Your task to perform on an android device: change keyboard looks Image 0: 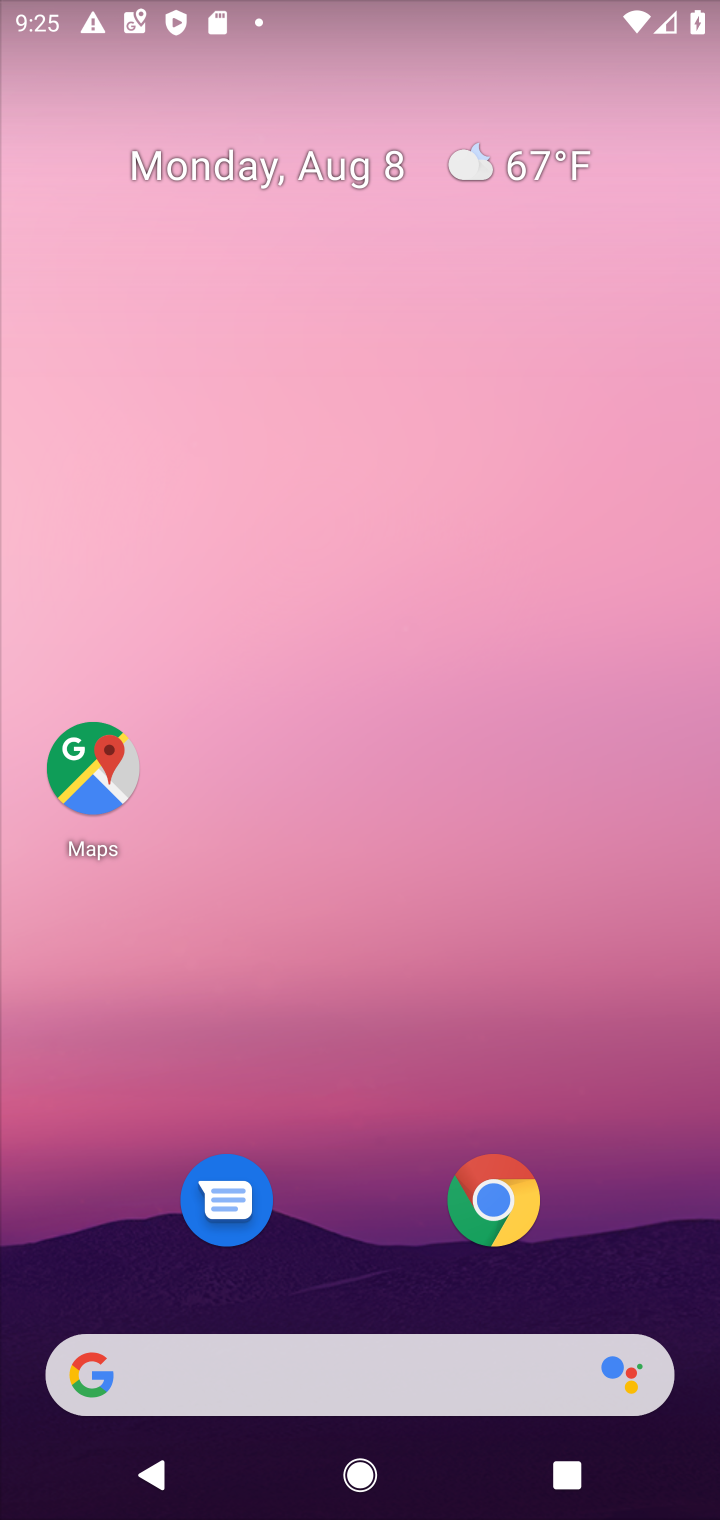
Step 0: press home button
Your task to perform on an android device: change keyboard looks Image 1: 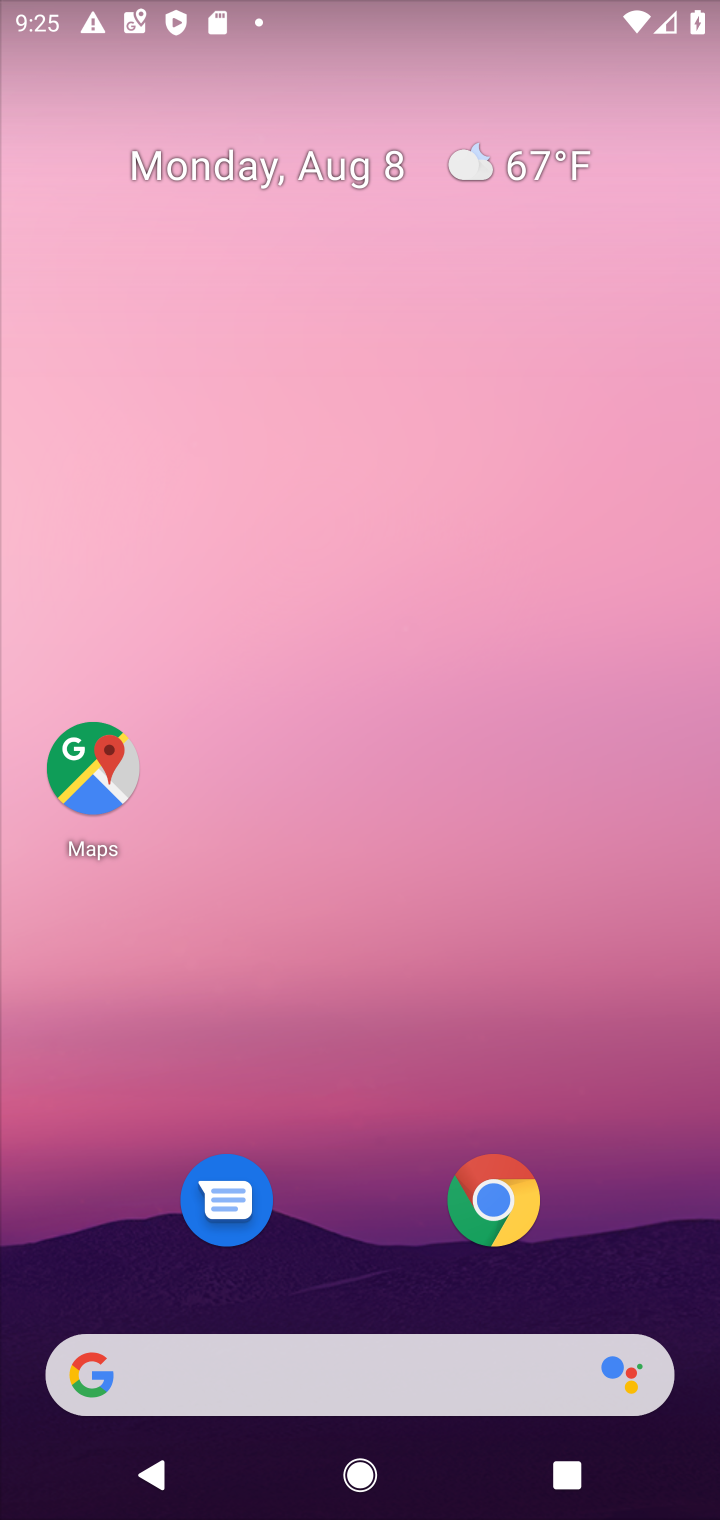
Step 1: drag from (308, 1380) to (656, 104)
Your task to perform on an android device: change keyboard looks Image 2: 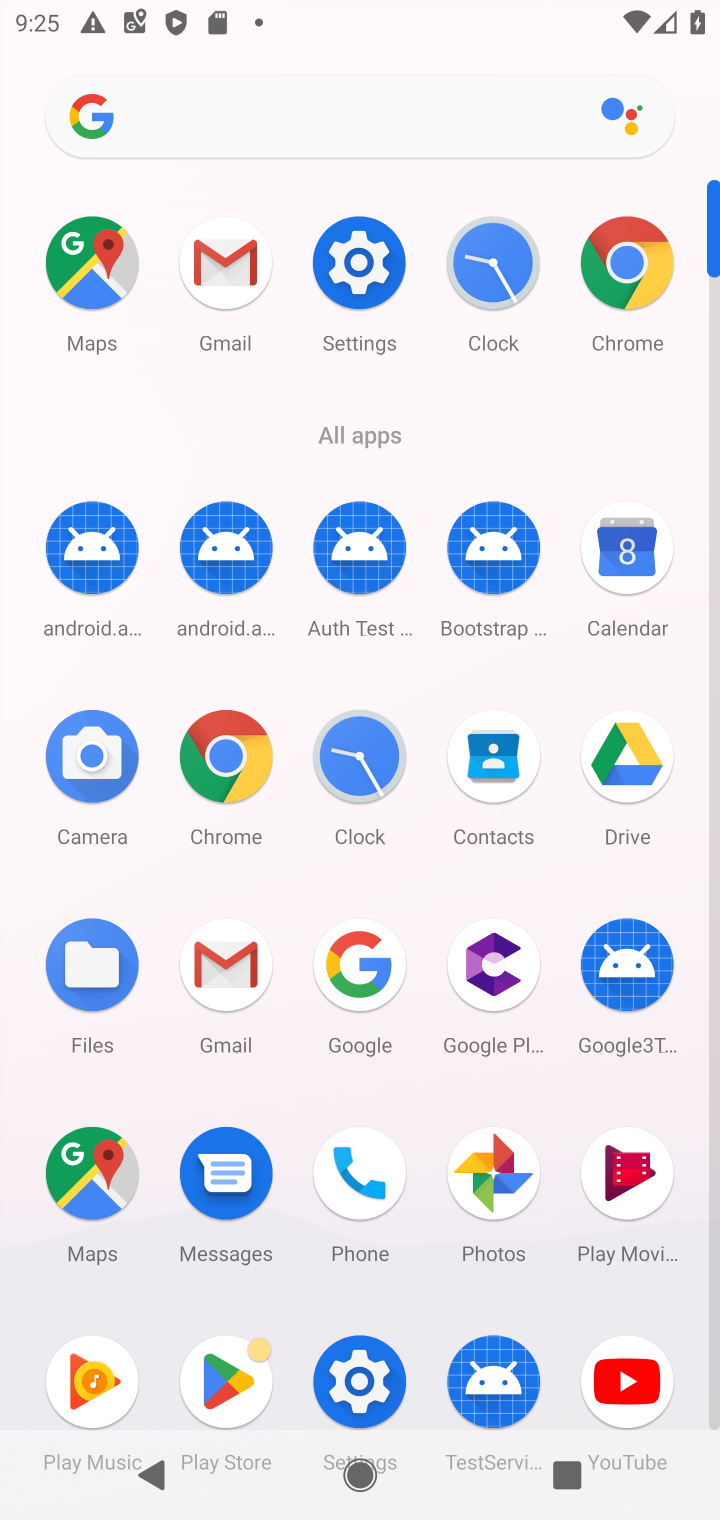
Step 2: click (364, 238)
Your task to perform on an android device: change keyboard looks Image 3: 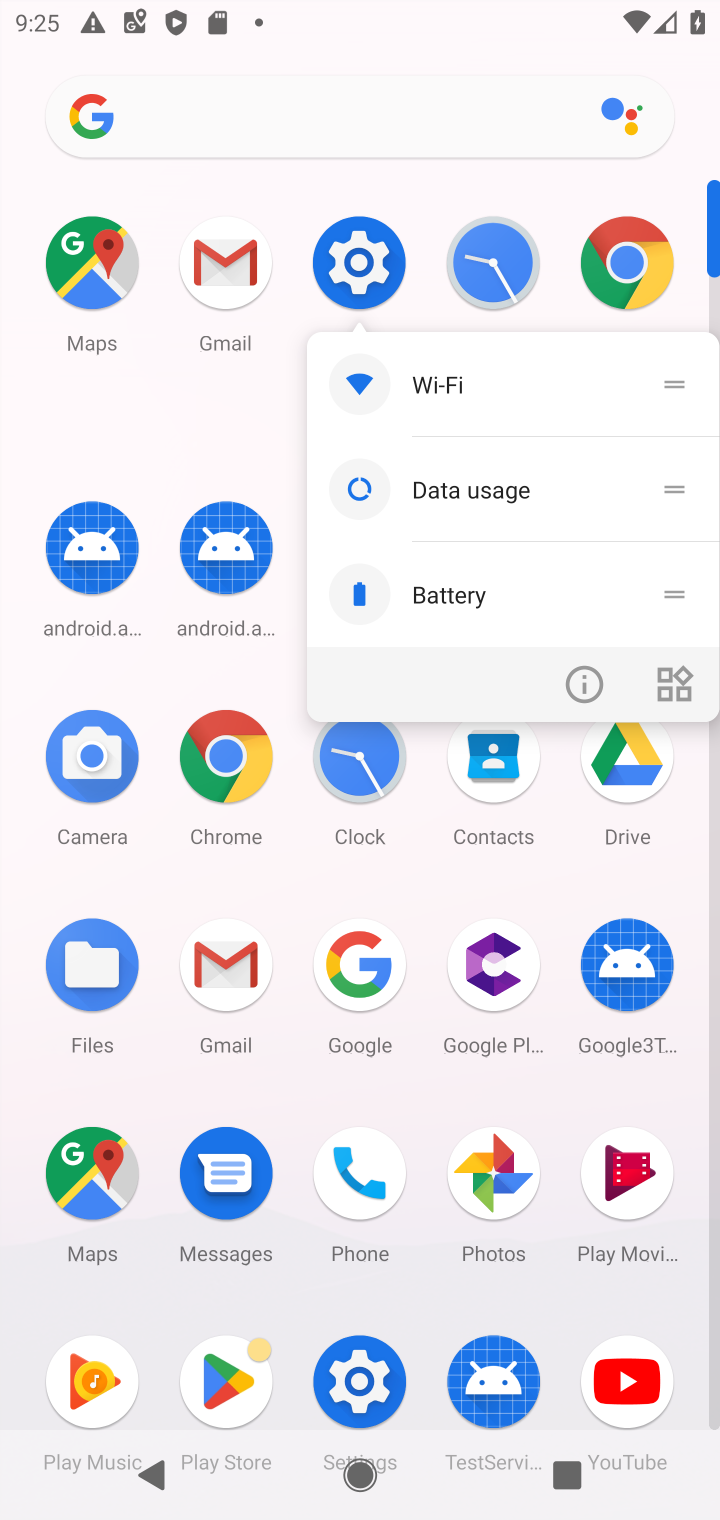
Step 3: click (357, 247)
Your task to perform on an android device: change keyboard looks Image 4: 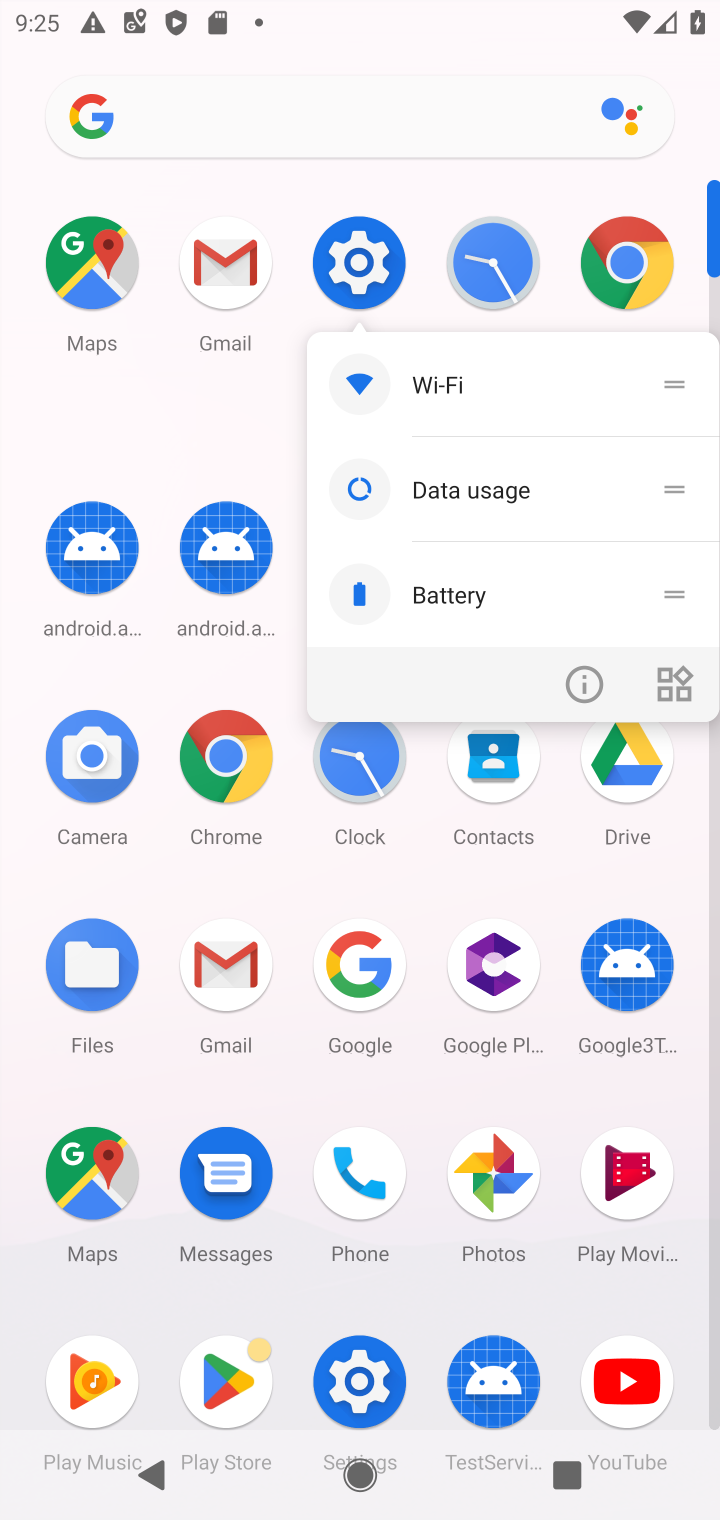
Step 4: click (357, 247)
Your task to perform on an android device: change keyboard looks Image 5: 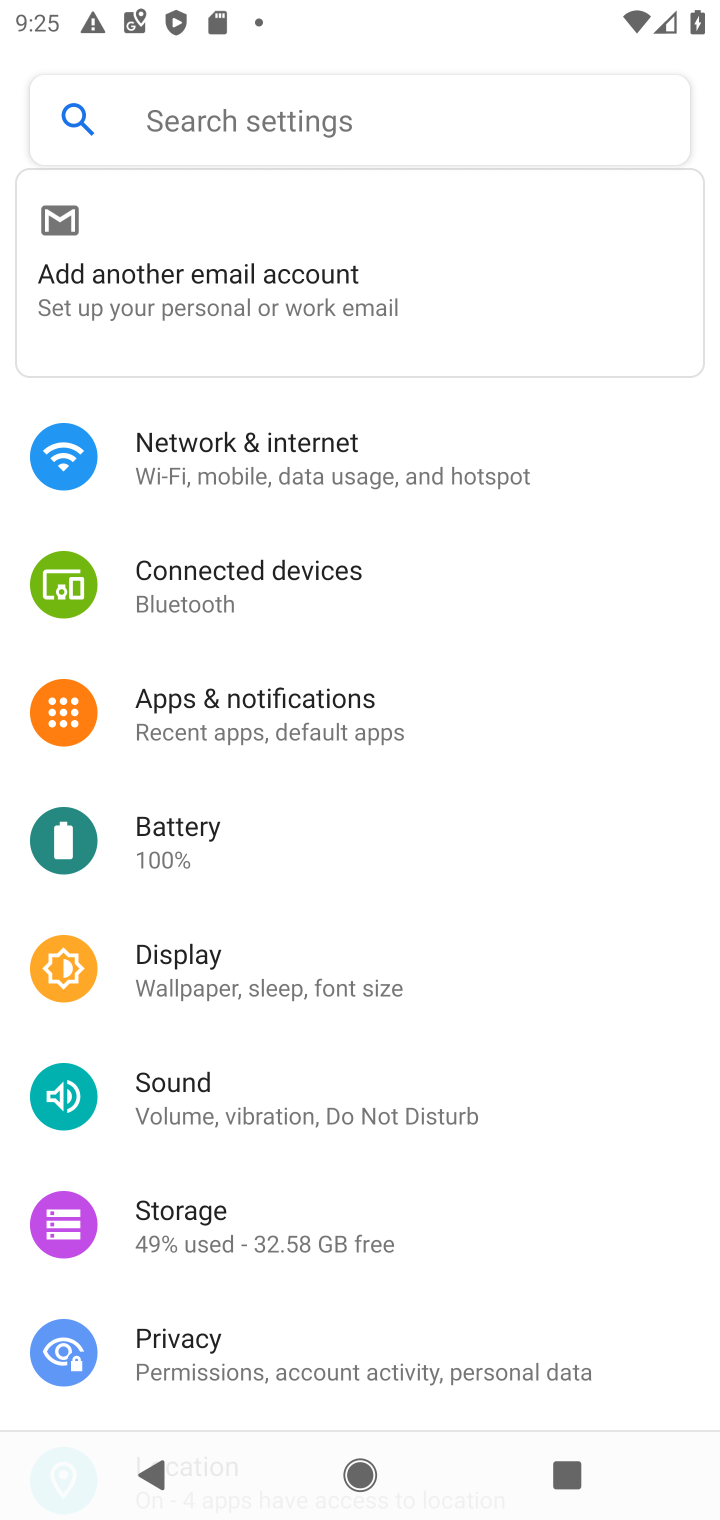
Step 5: drag from (377, 1323) to (662, 45)
Your task to perform on an android device: change keyboard looks Image 6: 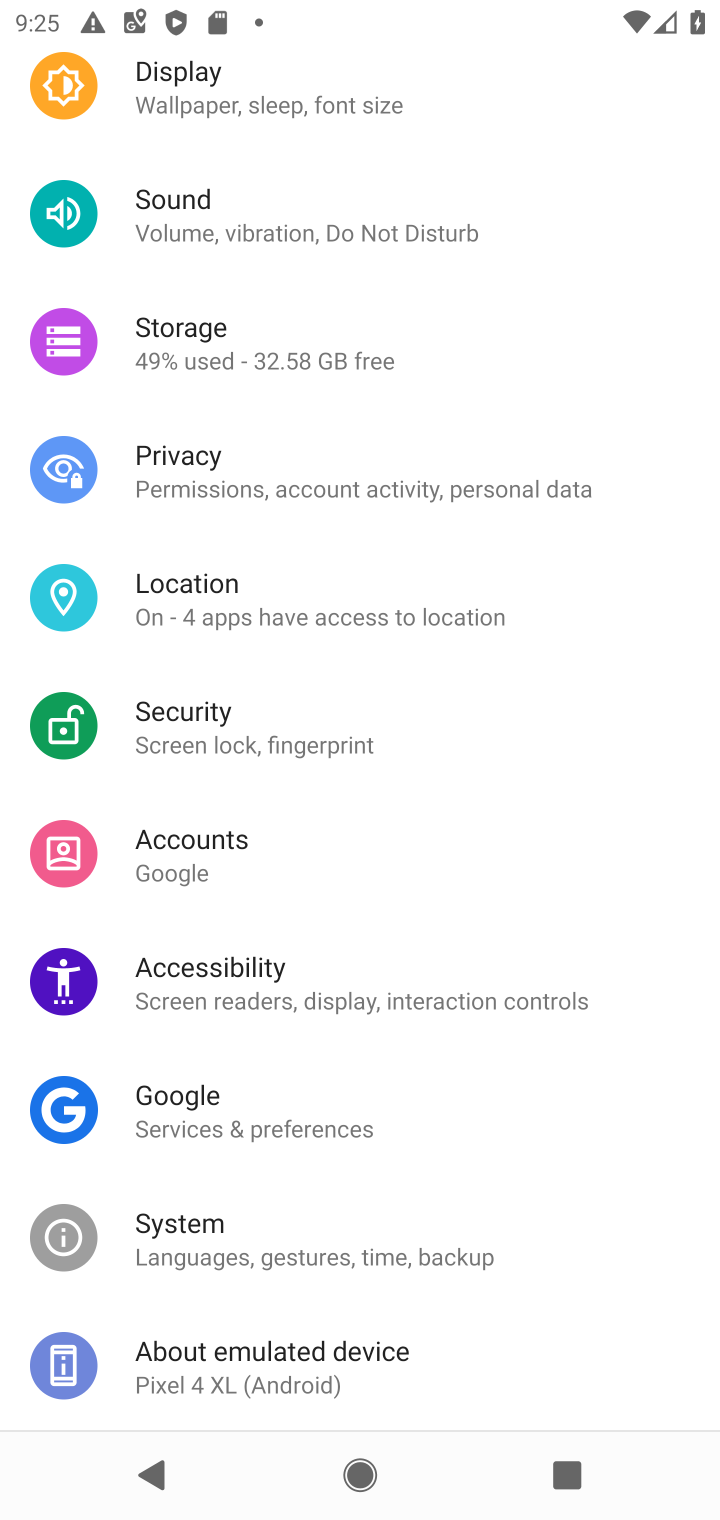
Step 6: drag from (392, 1313) to (632, 304)
Your task to perform on an android device: change keyboard looks Image 7: 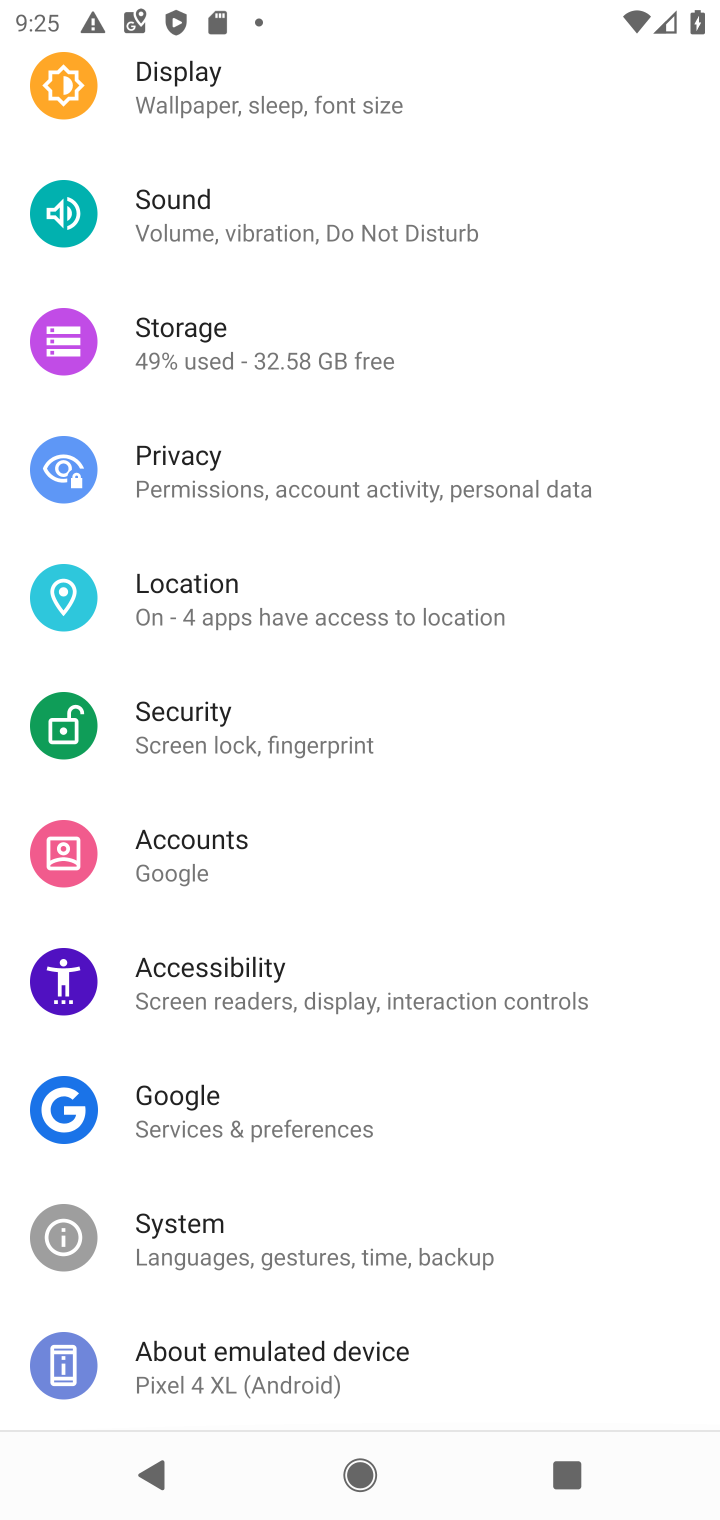
Step 7: click (257, 1237)
Your task to perform on an android device: change keyboard looks Image 8: 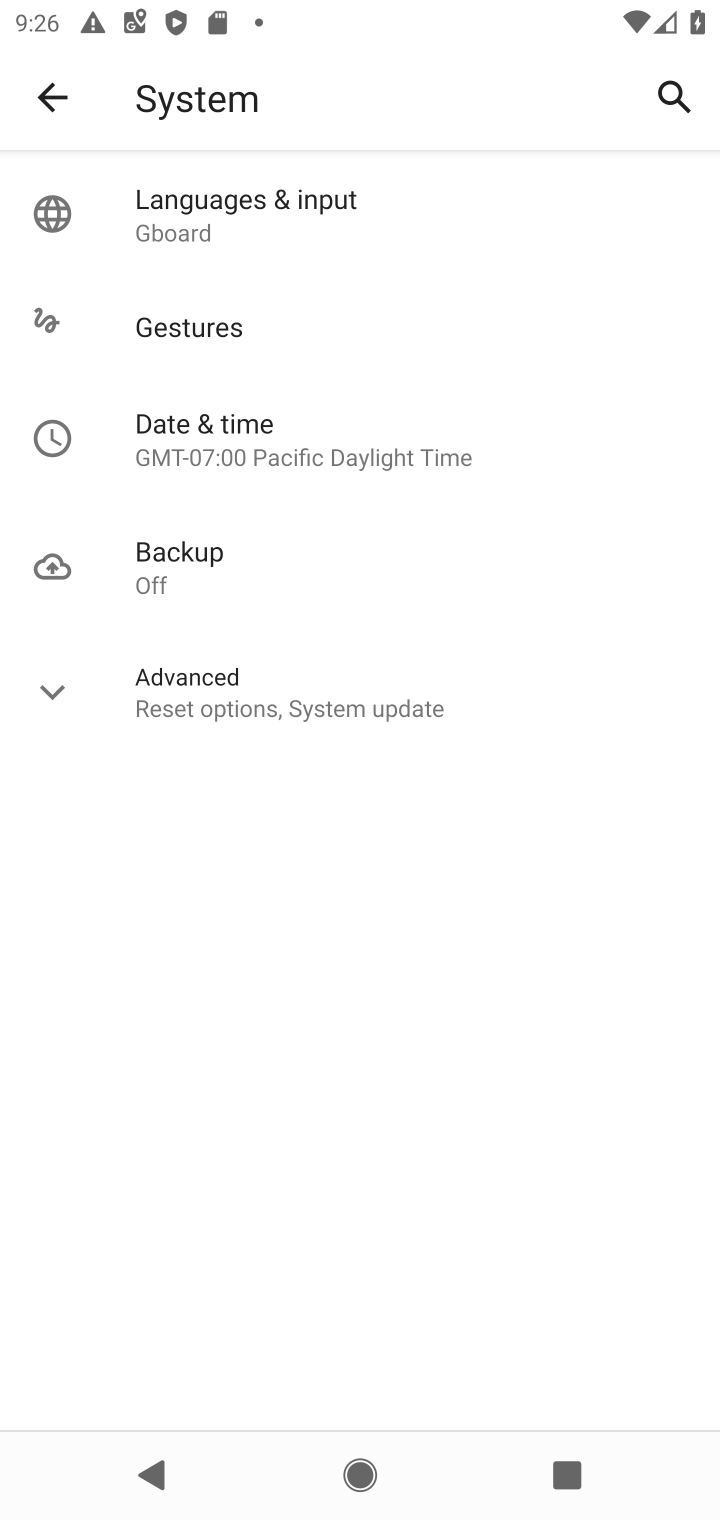
Step 8: click (260, 213)
Your task to perform on an android device: change keyboard looks Image 9: 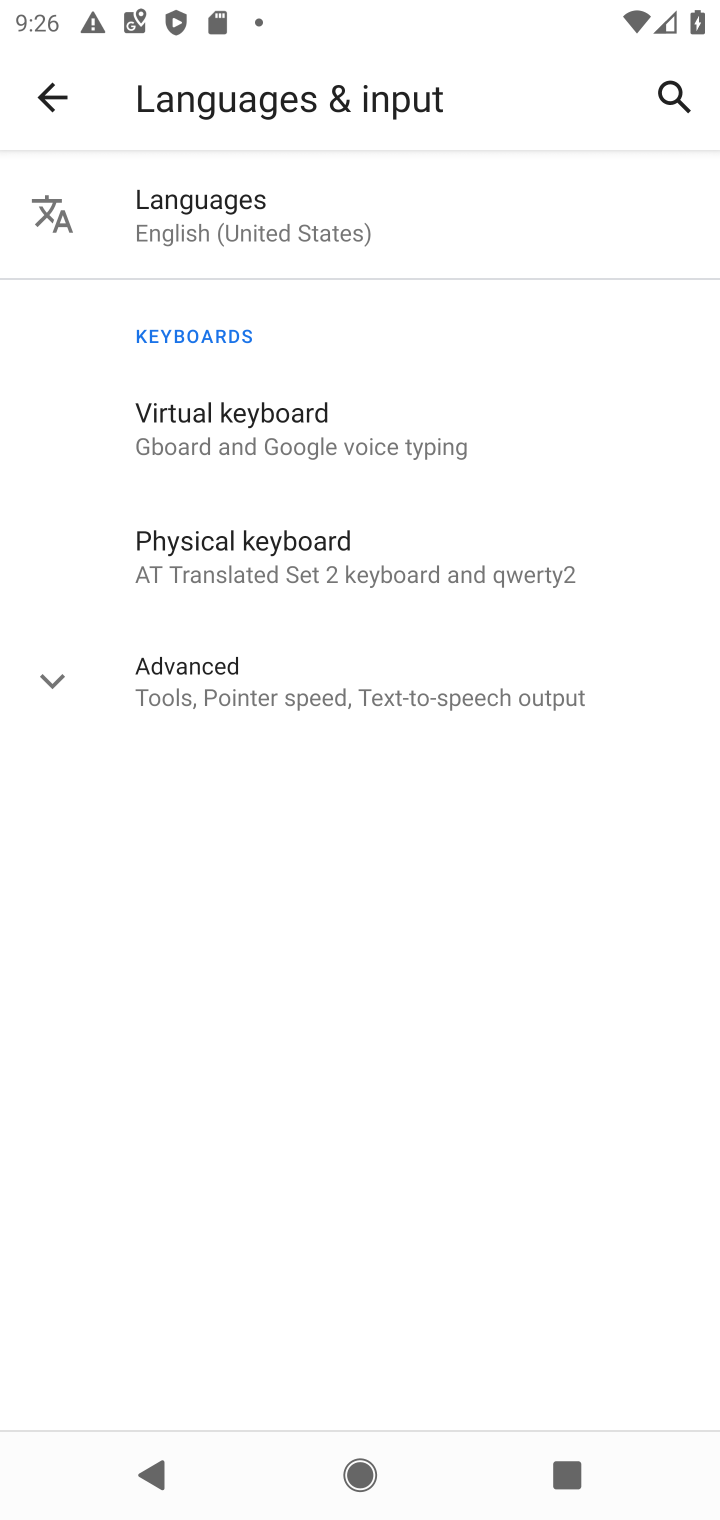
Step 9: click (200, 407)
Your task to perform on an android device: change keyboard looks Image 10: 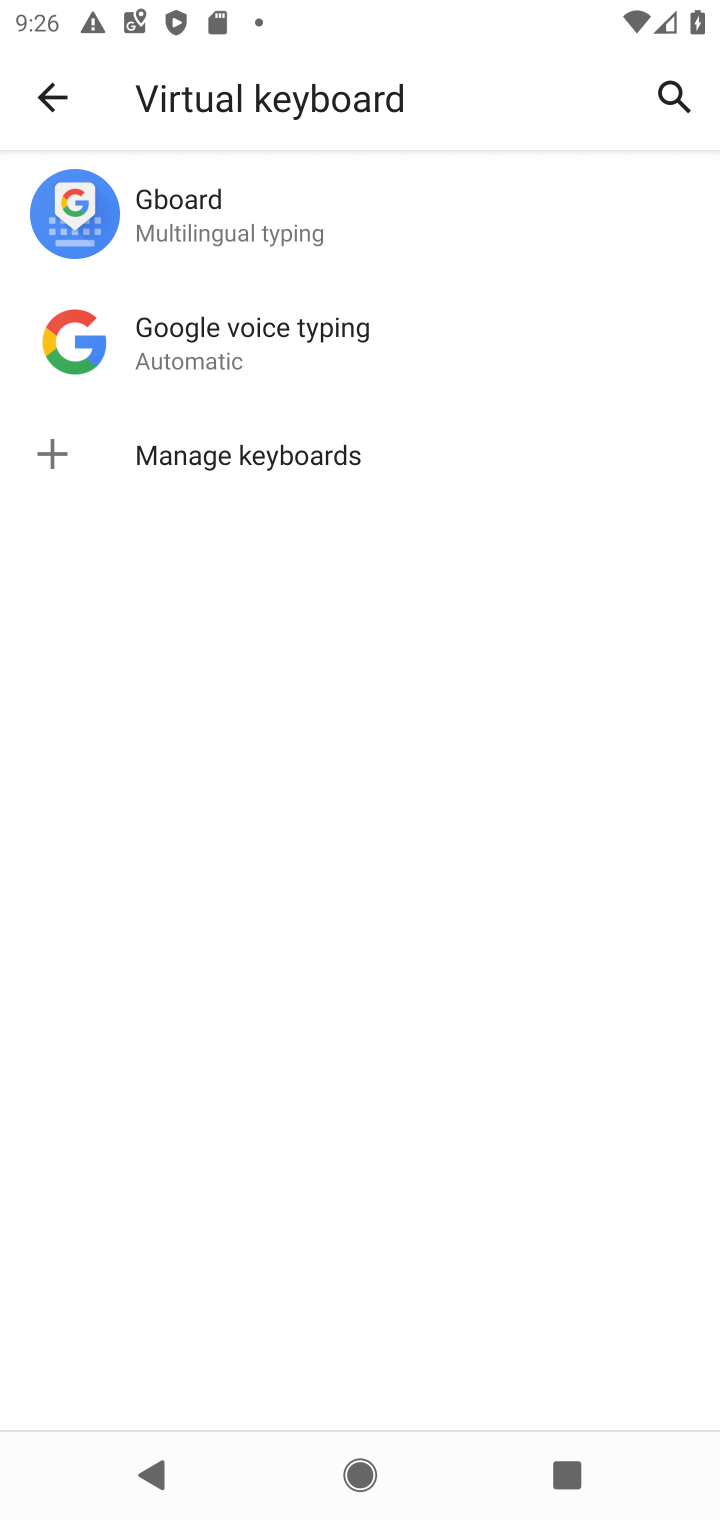
Step 10: click (244, 218)
Your task to perform on an android device: change keyboard looks Image 11: 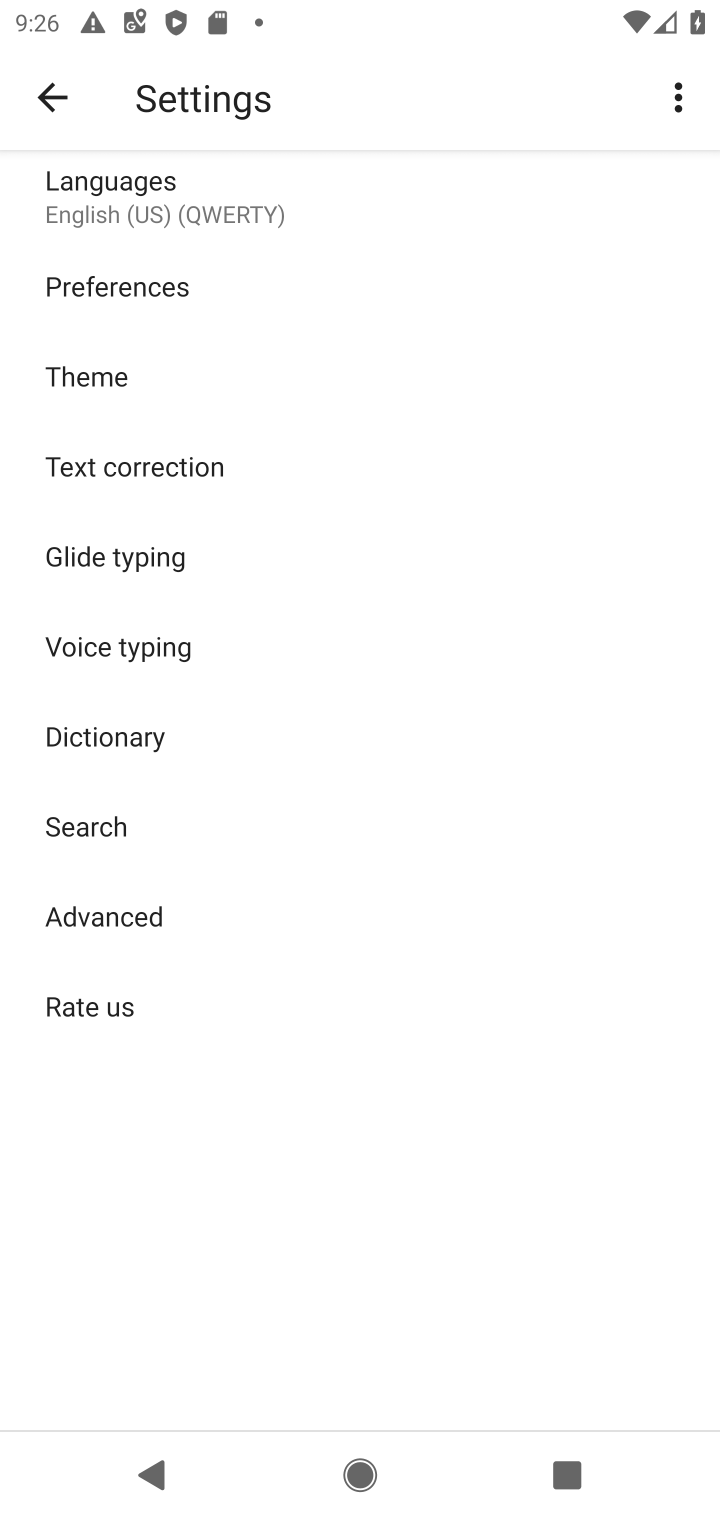
Step 11: click (95, 383)
Your task to perform on an android device: change keyboard looks Image 12: 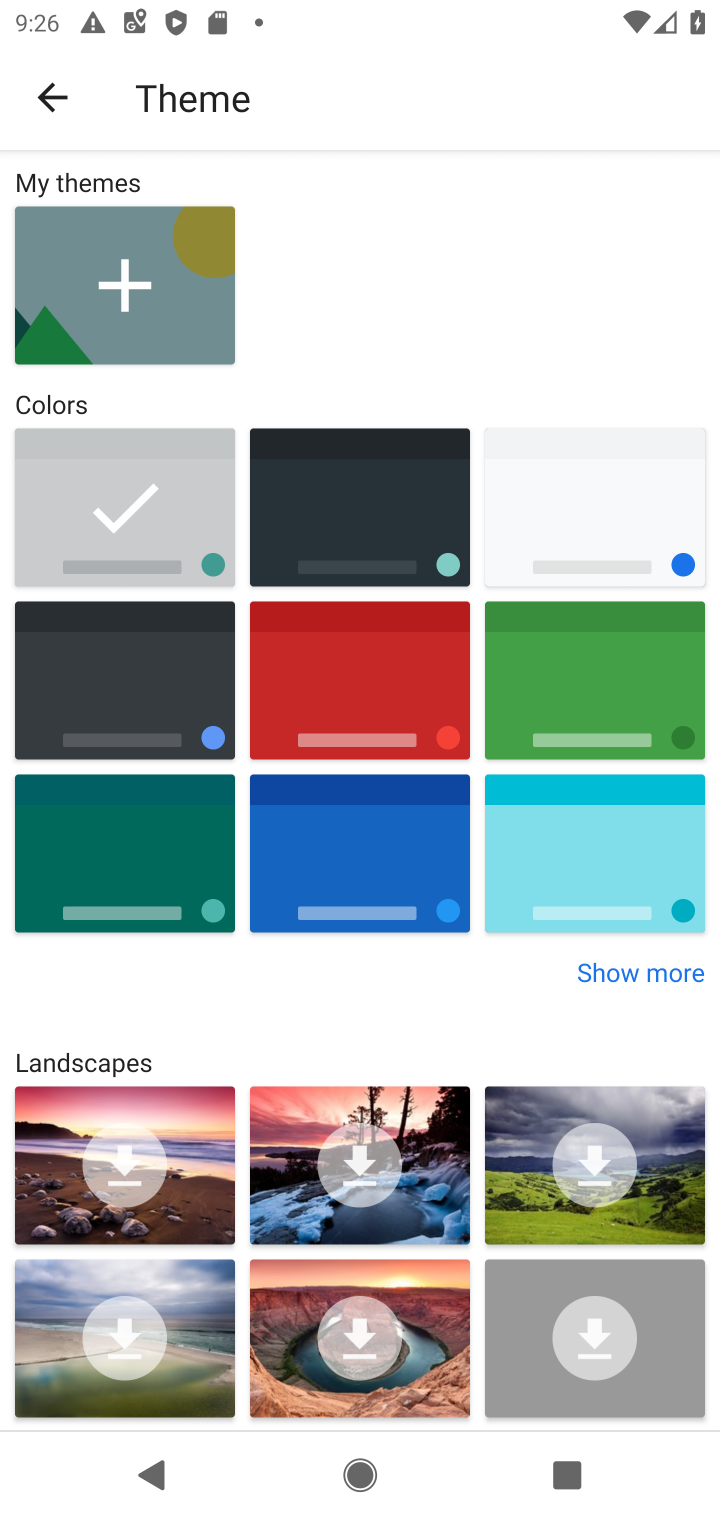
Step 12: click (366, 677)
Your task to perform on an android device: change keyboard looks Image 13: 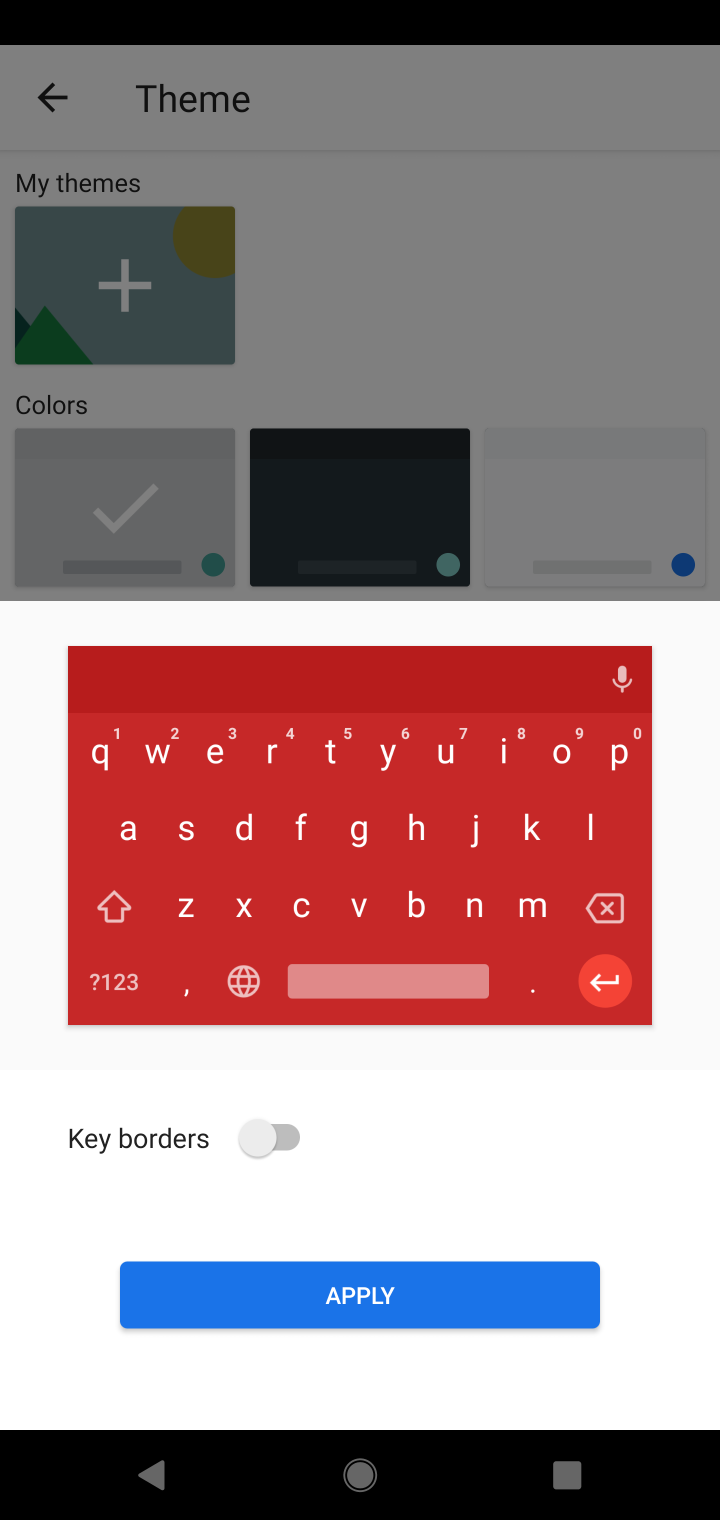
Step 13: click (370, 1294)
Your task to perform on an android device: change keyboard looks Image 14: 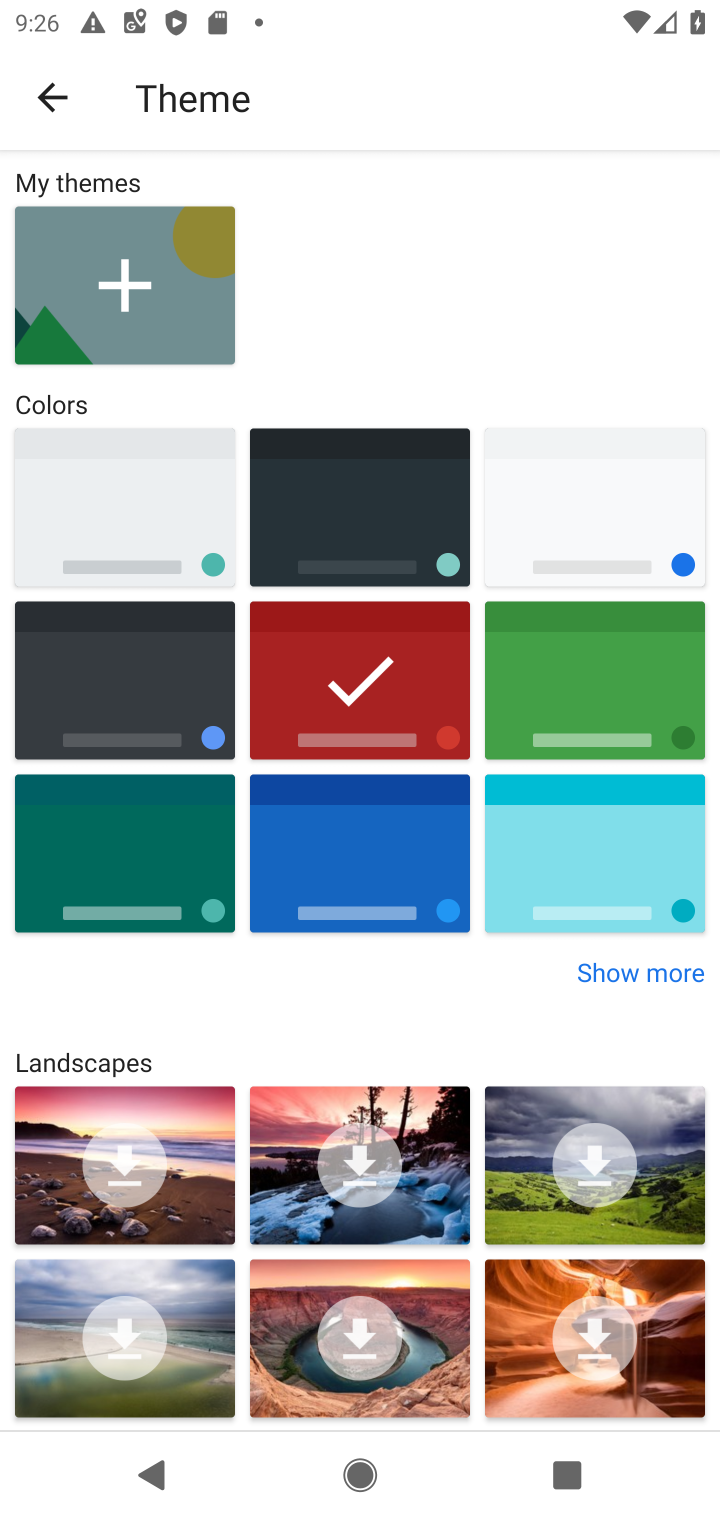
Step 14: task complete